Your task to perform on an android device: Open Youtube and go to the subscriptions tab Image 0: 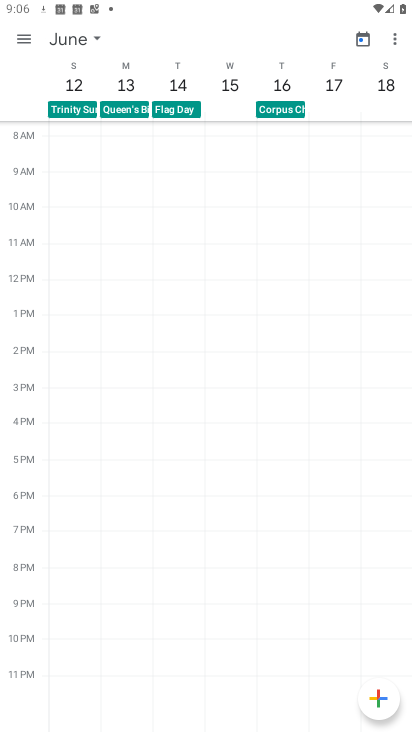
Step 0: press home button
Your task to perform on an android device: Open Youtube and go to the subscriptions tab Image 1: 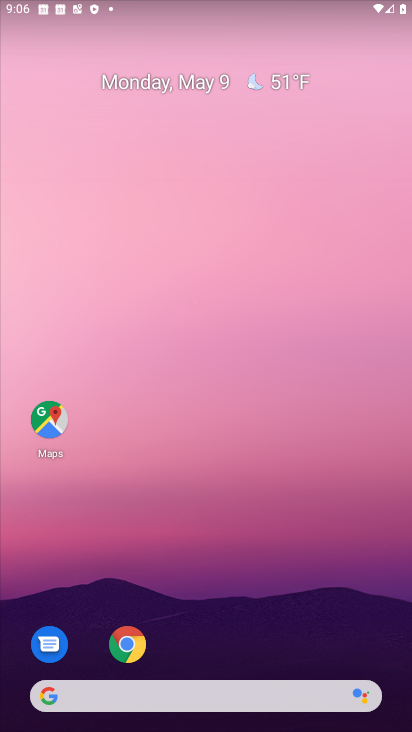
Step 1: drag from (214, 673) to (235, 90)
Your task to perform on an android device: Open Youtube and go to the subscriptions tab Image 2: 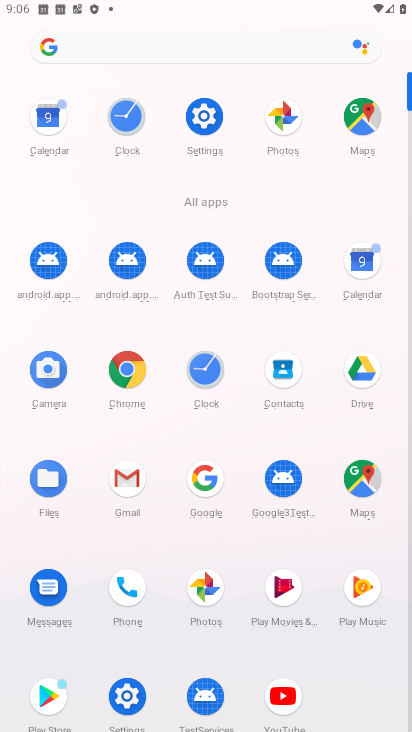
Step 2: click (283, 689)
Your task to perform on an android device: Open Youtube and go to the subscriptions tab Image 3: 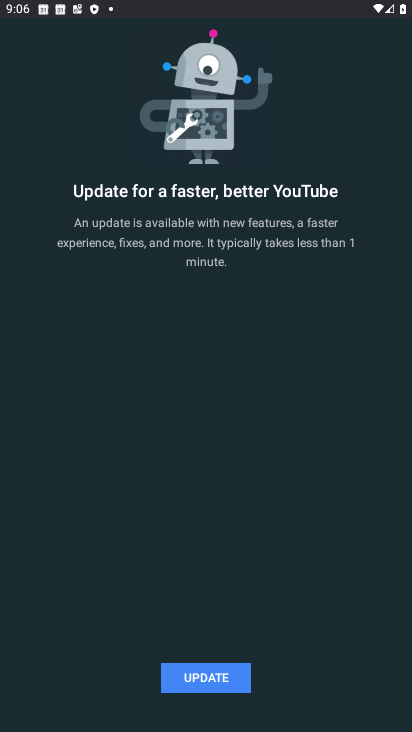
Step 3: click (236, 681)
Your task to perform on an android device: Open Youtube and go to the subscriptions tab Image 4: 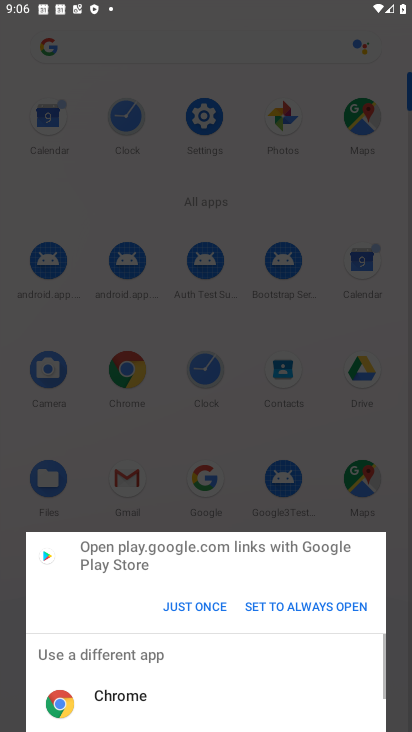
Step 4: click (197, 601)
Your task to perform on an android device: Open Youtube and go to the subscriptions tab Image 5: 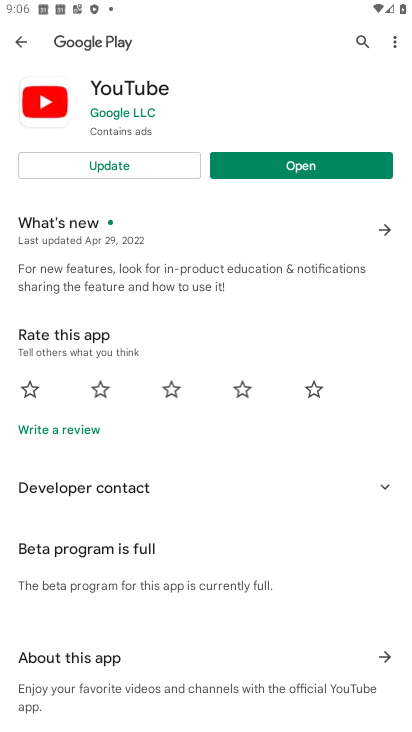
Step 5: click (155, 168)
Your task to perform on an android device: Open Youtube and go to the subscriptions tab Image 6: 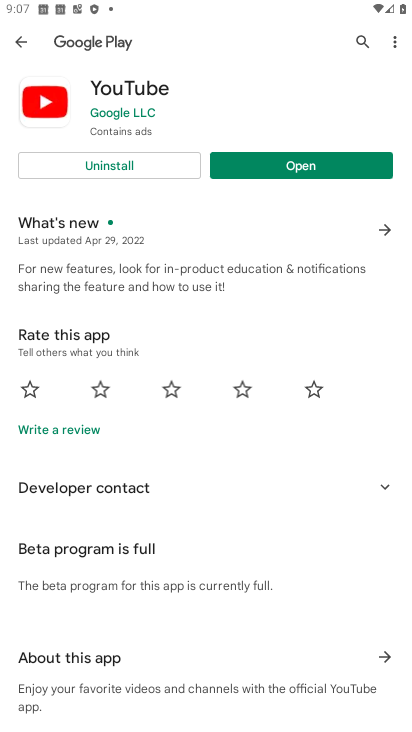
Step 6: click (316, 162)
Your task to perform on an android device: Open Youtube and go to the subscriptions tab Image 7: 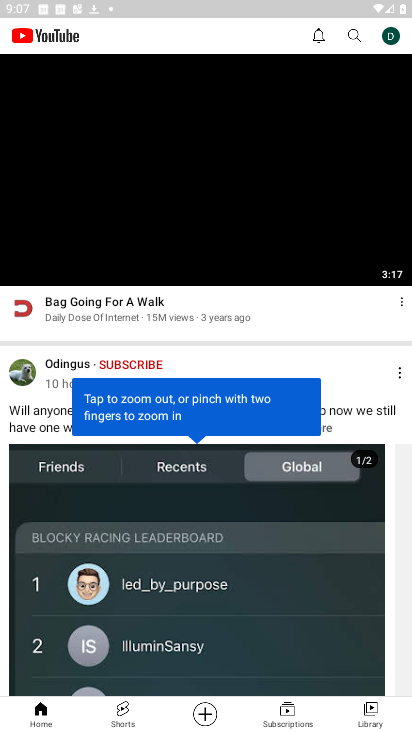
Step 7: click (277, 724)
Your task to perform on an android device: Open Youtube and go to the subscriptions tab Image 8: 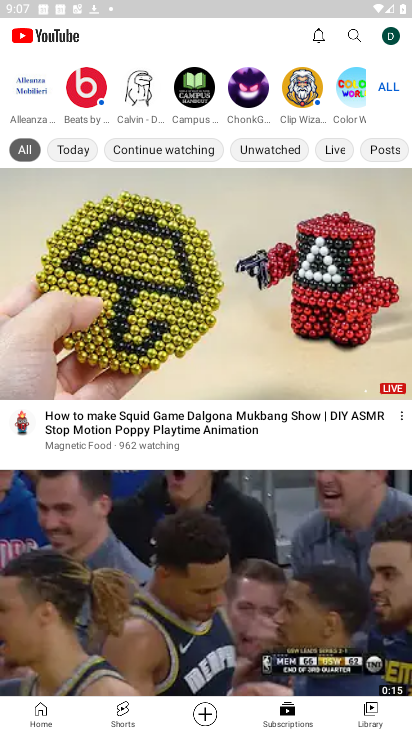
Step 8: task complete